Your task to perform on an android device: make emails show in primary in the gmail app Image 0: 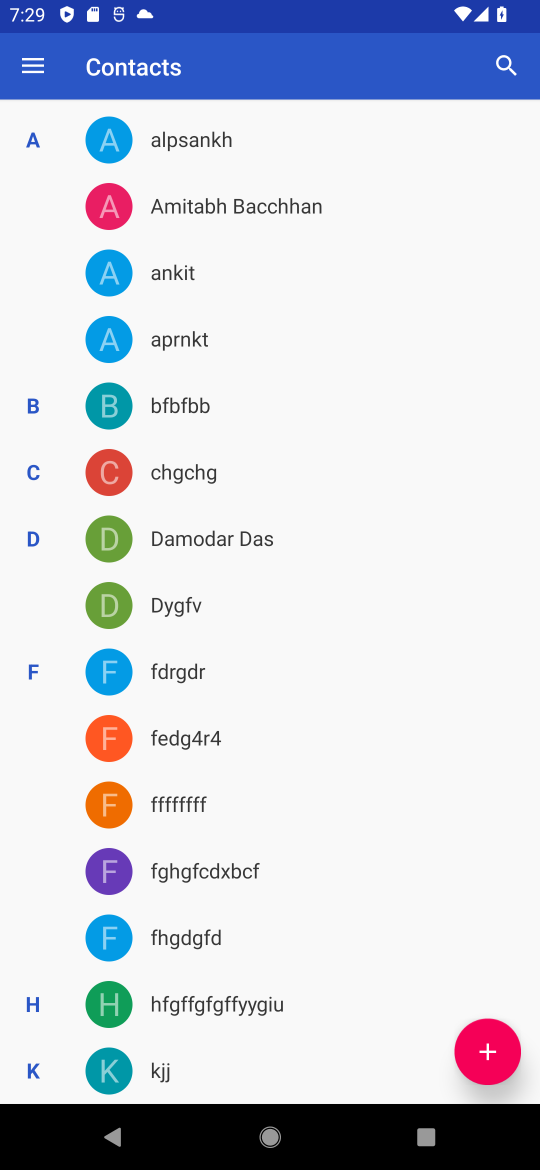
Step 0: press home button
Your task to perform on an android device: make emails show in primary in the gmail app Image 1: 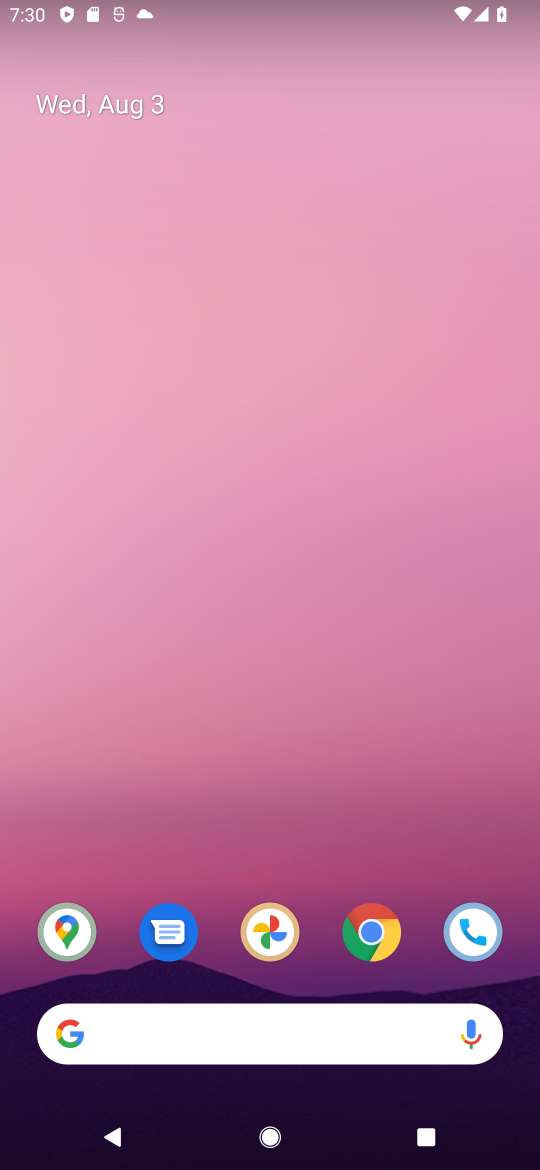
Step 1: drag from (197, 1058) to (182, 13)
Your task to perform on an android device: make emails show in primary in the gmail app Image 2: 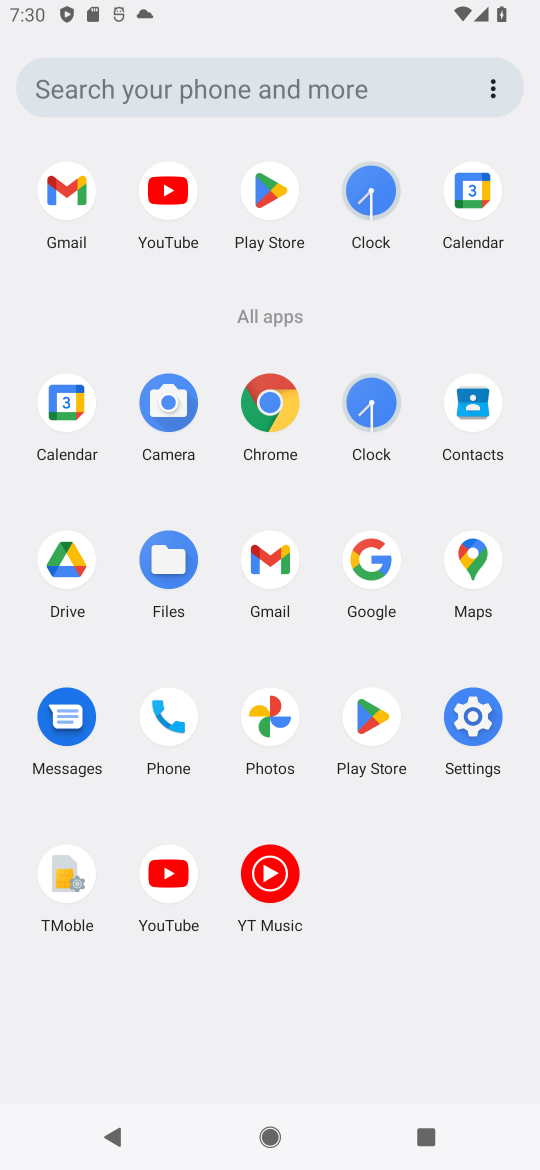
Step 2: click (263, 561)
Your task to perform on an android device: make emails show in primary in the gmail app Image 3: 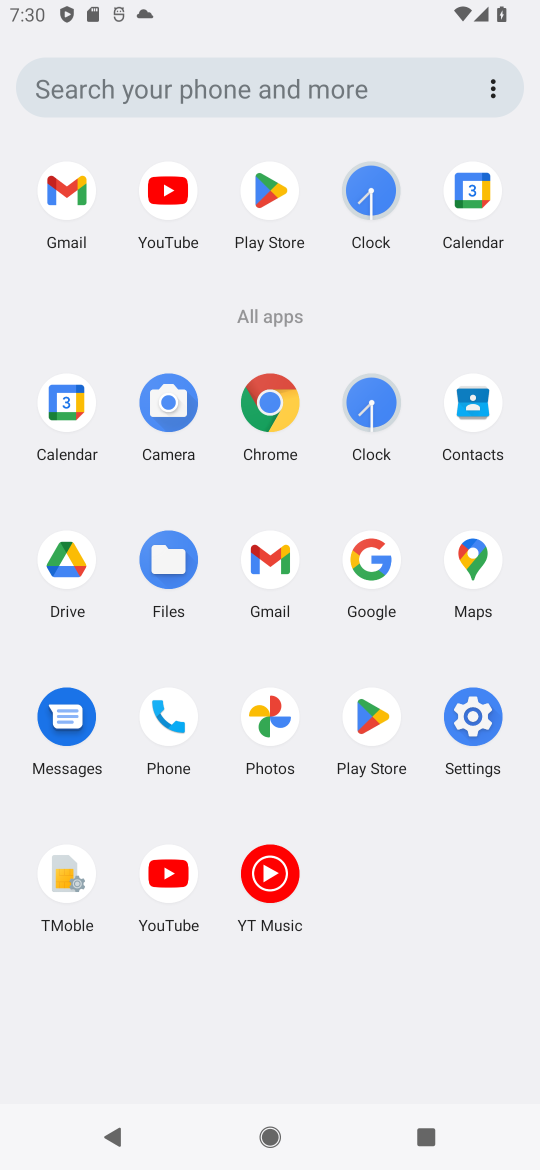
Step 3: click (263, 561)
Your task to perform on an android device: make emails show in primary in the gmail app Image 4: 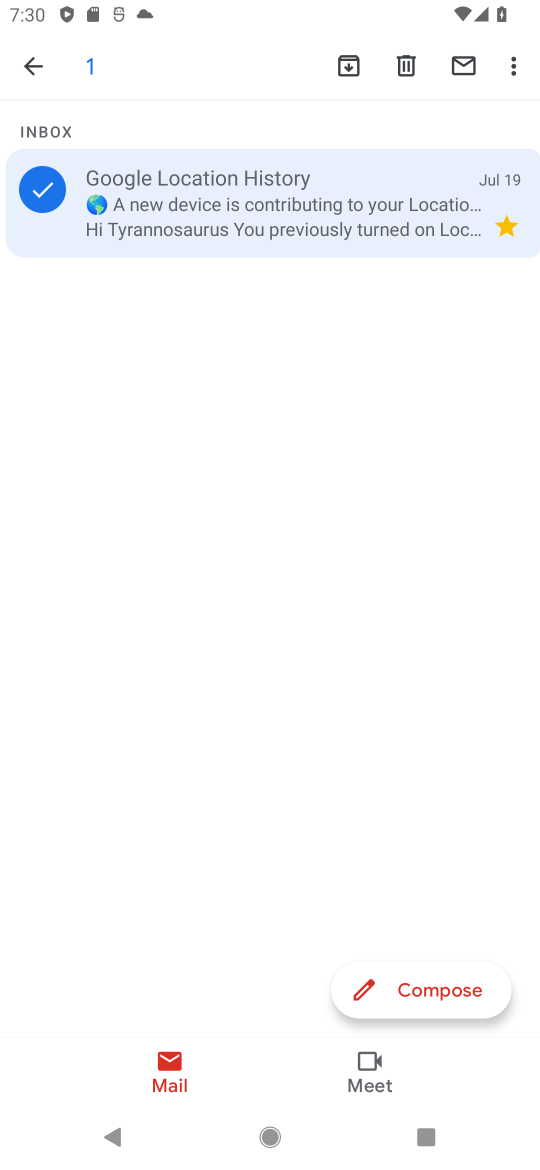
Step 4: click (29, 67)
Your task to perform on an android device: make emails show in primary in the gmail app Image 5: 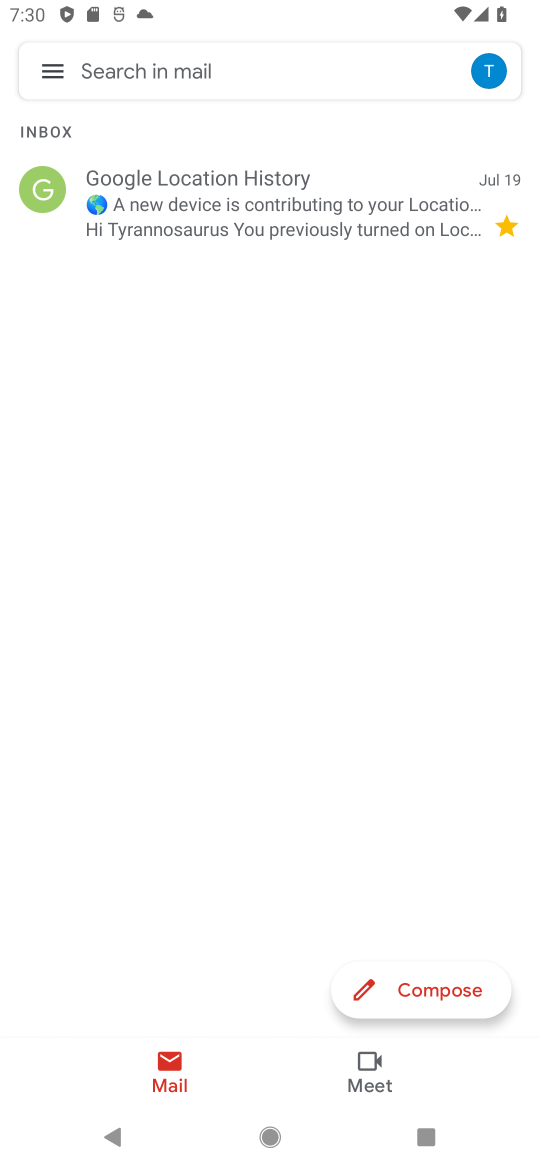
Step 5: click (54, 75)
Your task to perform on an android device: make emails show in primary in the gmail app Image 6: 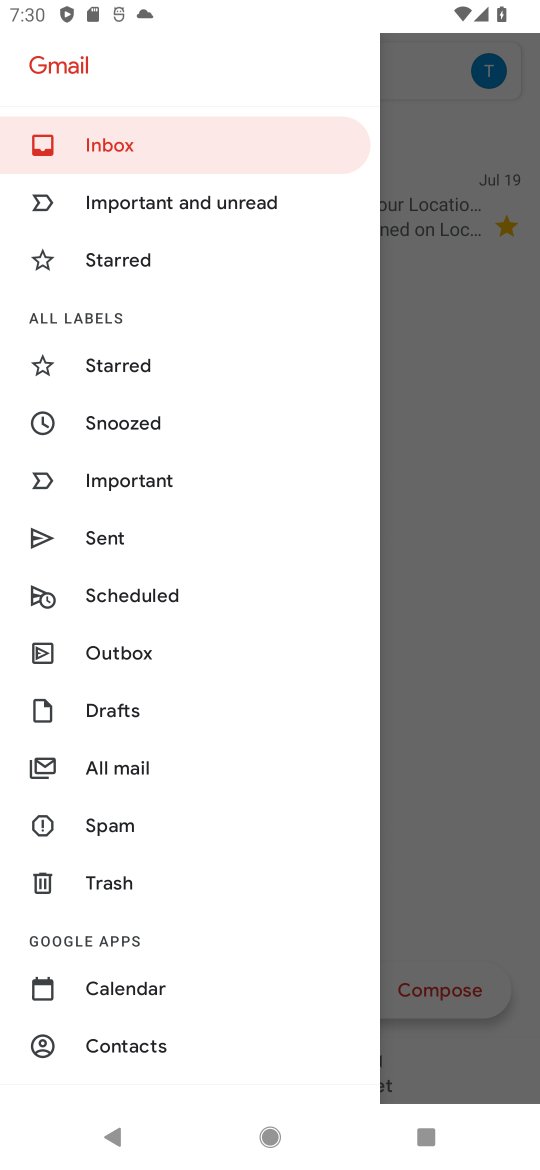
Step 6: drag from (250, 935) to (271, 130)
Your task to perform on an android device: make emails show in primary in the gmail app Image 7: 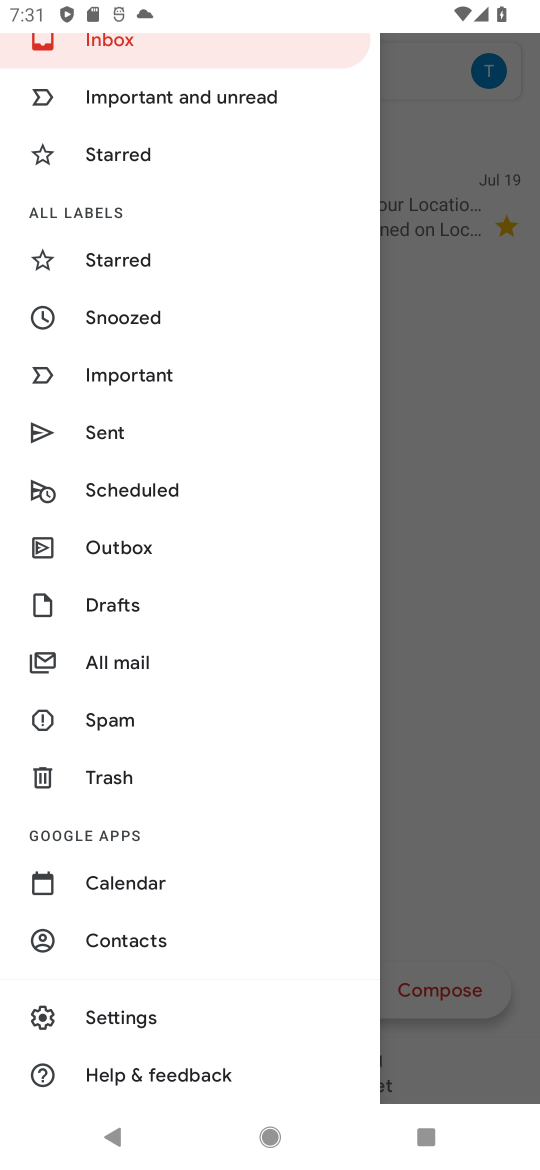
Step 7: click (146, 1021)
Your task to perform on an android device: make emails show in primary in the gmail app Image 8: 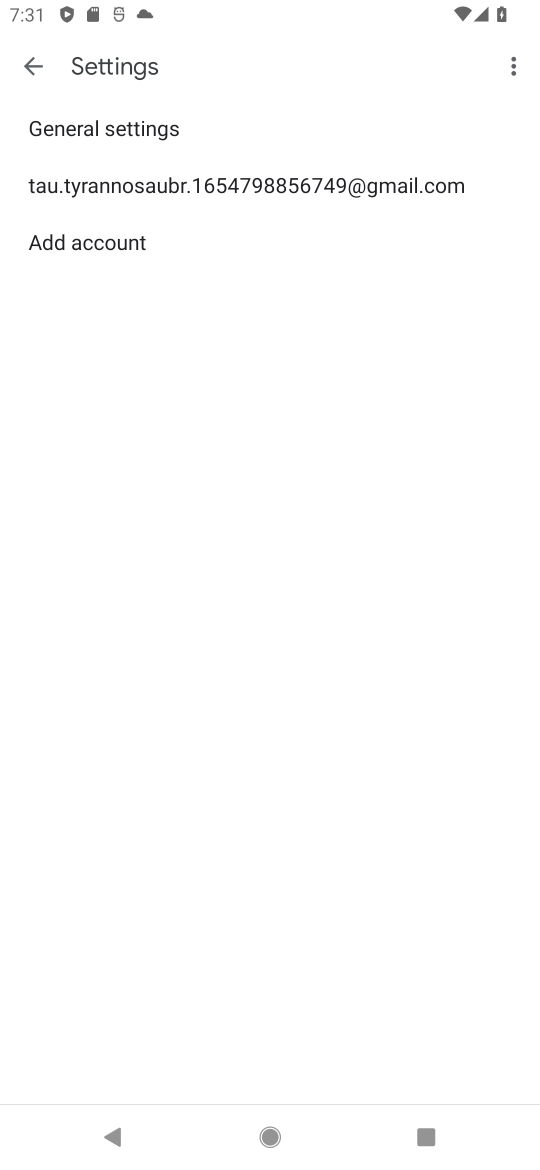
Step 8: click (151, 183)
Your task to perform on an android device: make emails show in primary in the gmail app Image 9: 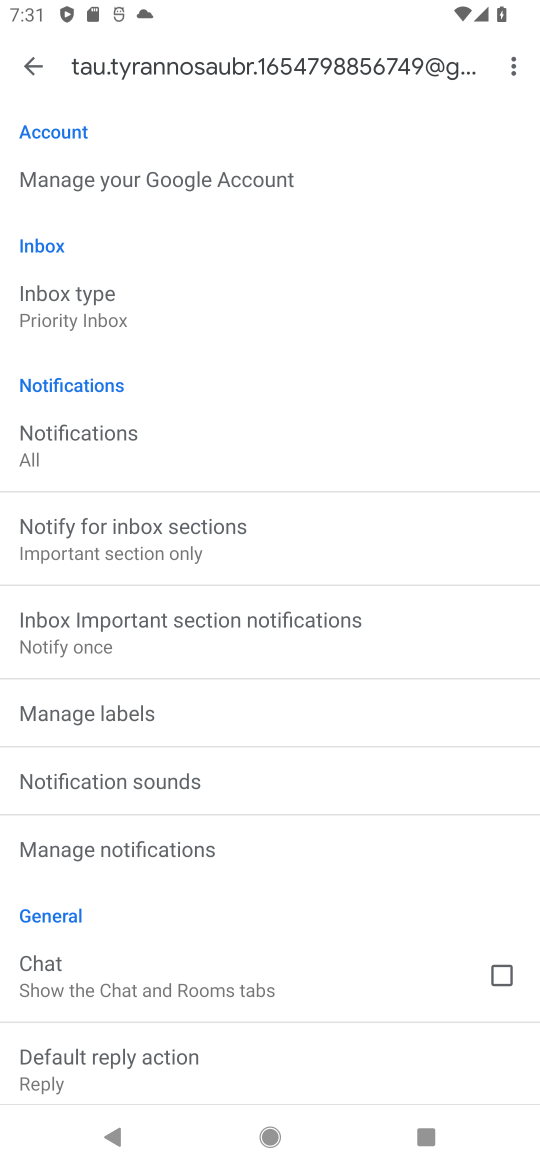
Step 9: click (82, 287)
Your task to perform on an android device: make emails show in primary in the gmail app Image 10: 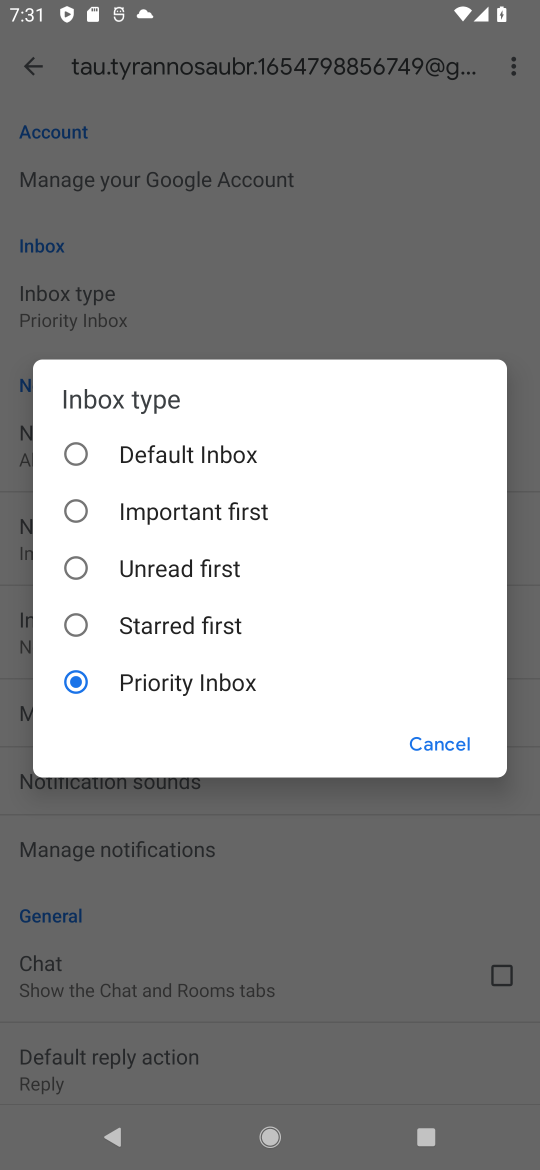
Step 10: click (225, 445)
Your task to perform on an android device: make emails show in primary in the gmail app Image 11: 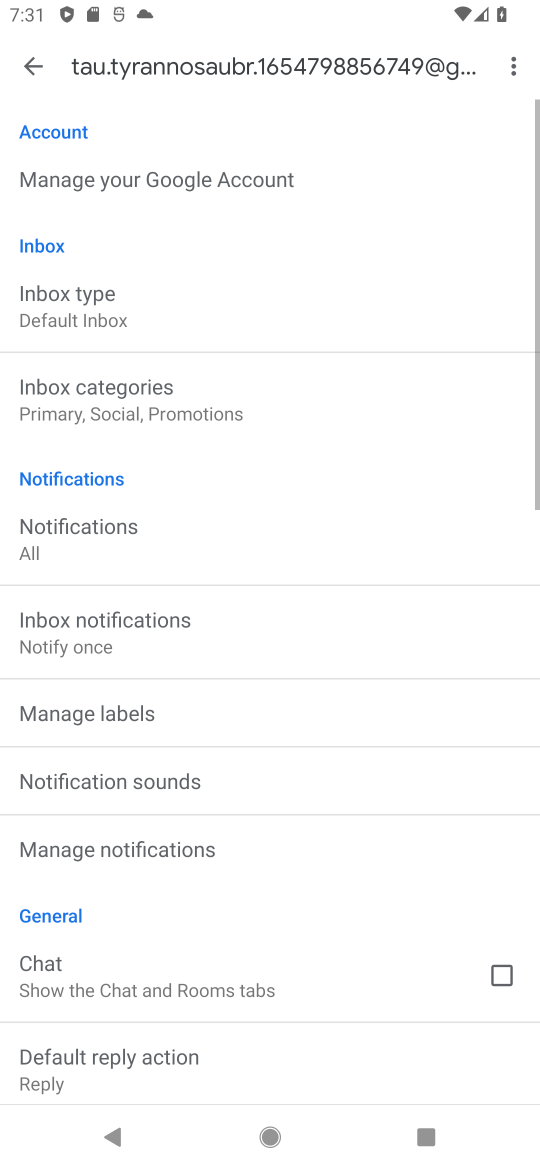
Step 11: click (128, 405)
Your task to perform on an android device: make emails show in primary in the gmail app Image 12: 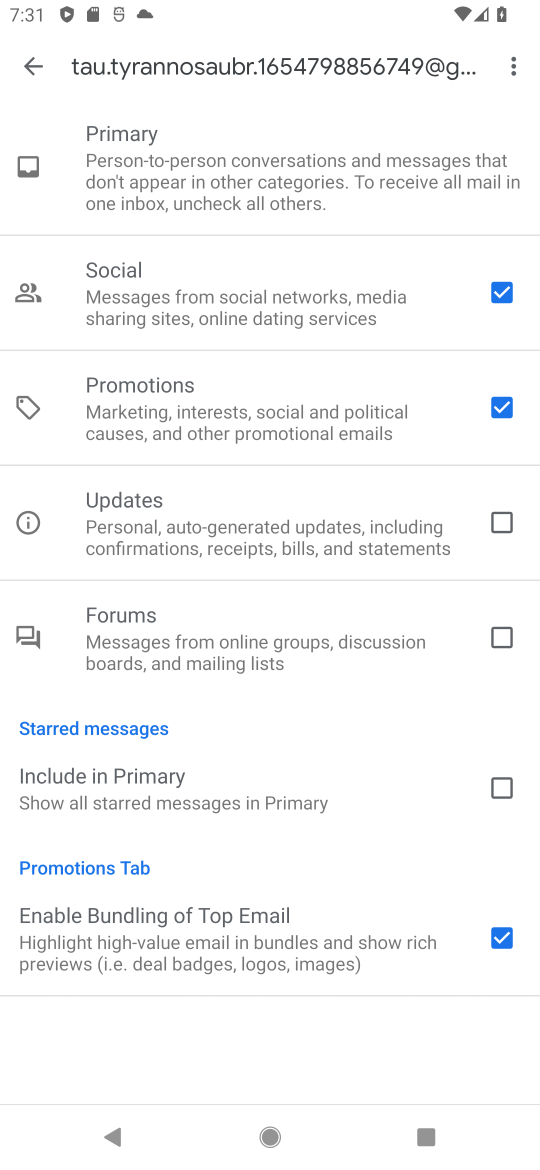
Step 12: click (502, 406)
Your task to perform on an android device: make emails show in primary in the gmail app Image 13: 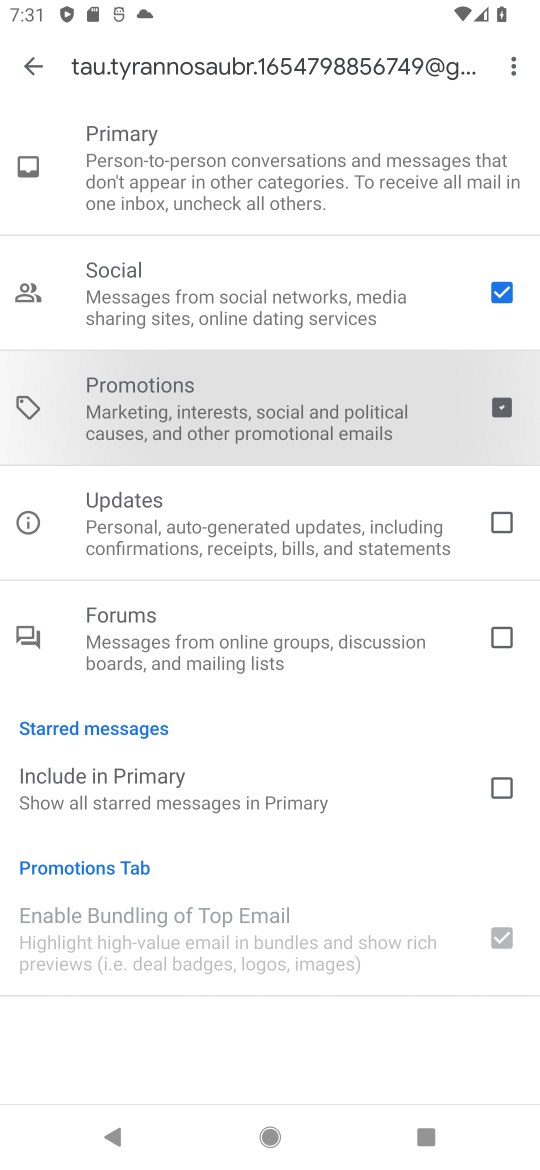
Step 13: click (504, 289)
Your task to perform on an android device: make emails show in primary in the gmail app Image 14: 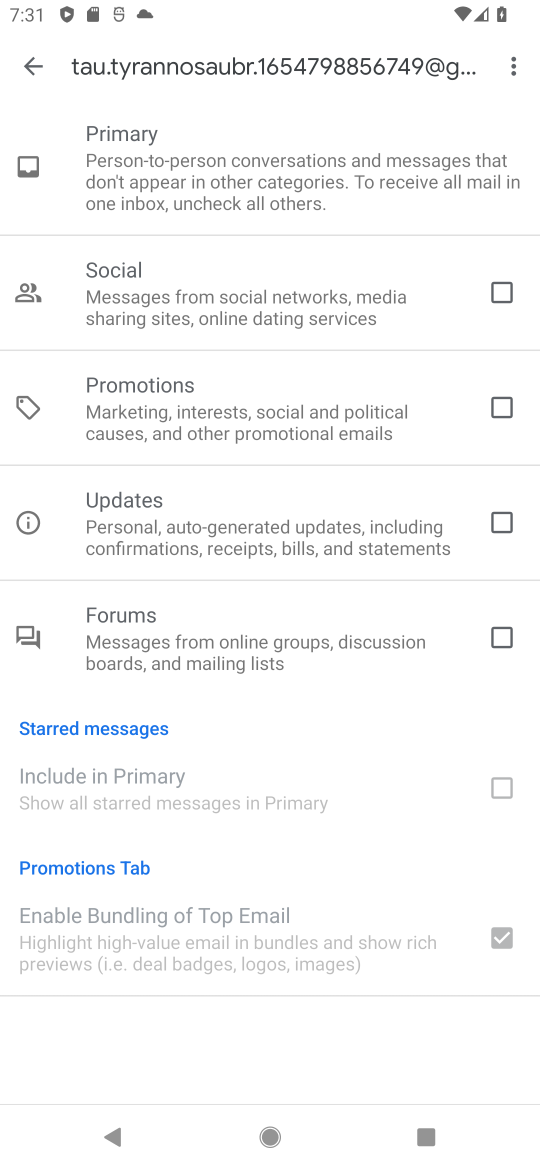
Step 14: task complete